Your task to perform on an android device: see tabs open on other devices in the chrome app Image 0: 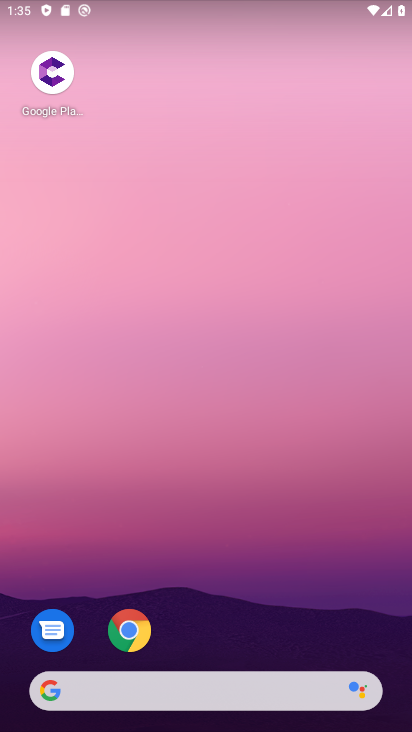
Step 0: click (131, 642)
Your task to perform on an android device: see tabs open on other devices in the chrome app Image 1: 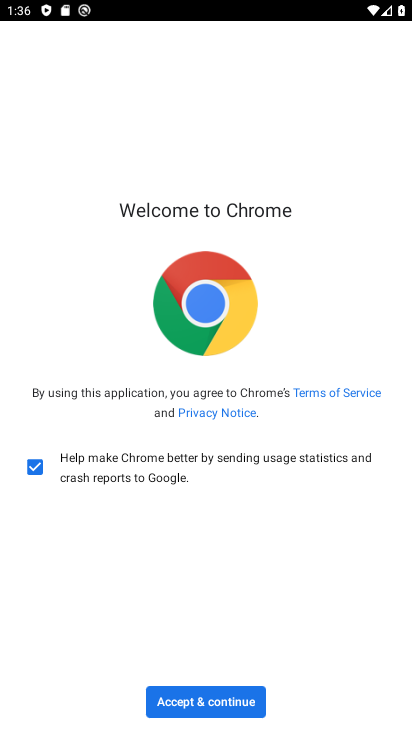
Step 1: click (173, 696)
Your task to perform on an android device: see tabs open on other devices in the chrome app Image 2: 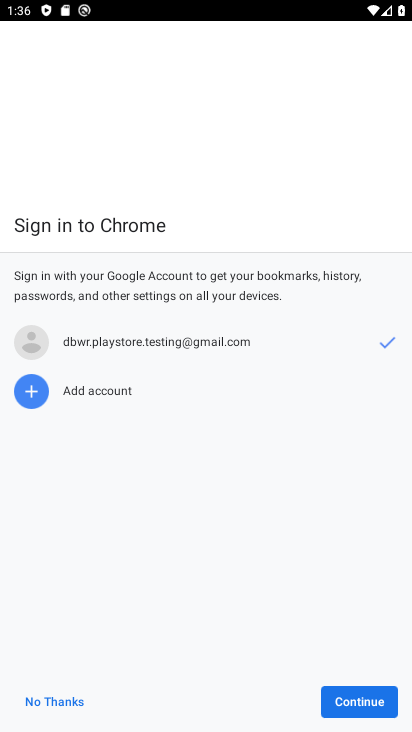
Step 2: click (346, 707)
Your task to perform on an android device: see tabs open on other devices in the chrome app Image 3: 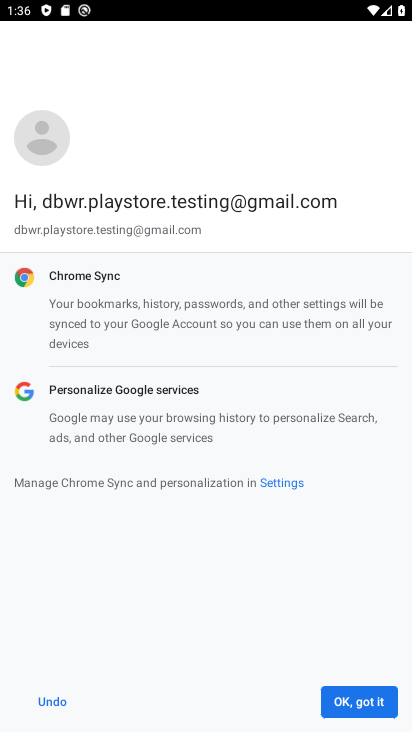
Step 3: click (346, 707)
Your task to perform on an android device: see tabs open on other devices in the chrome app Image 4: 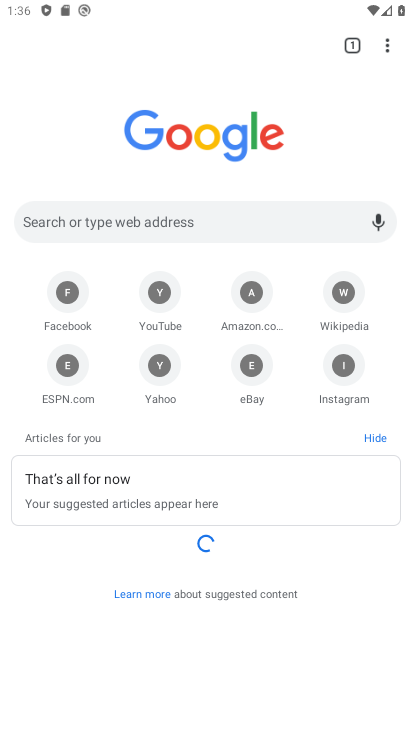
Step 4: task complete